Your task to perform on an android device: toggle wifi Image 0: 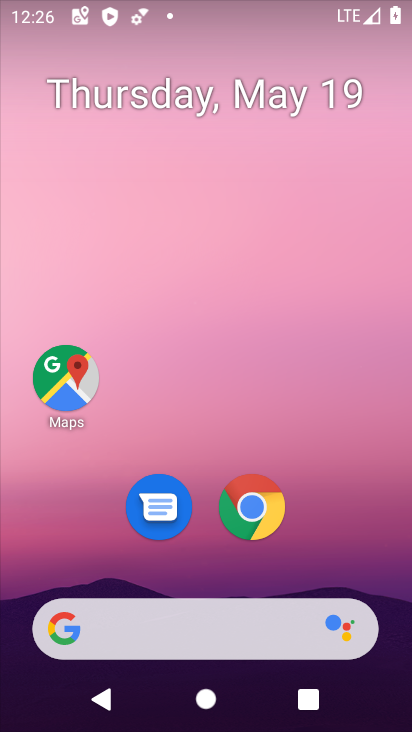
Step 0: drag from (211, 539) to (236, 164)
Your task to perform on an android device: toggle wifi Image 1: 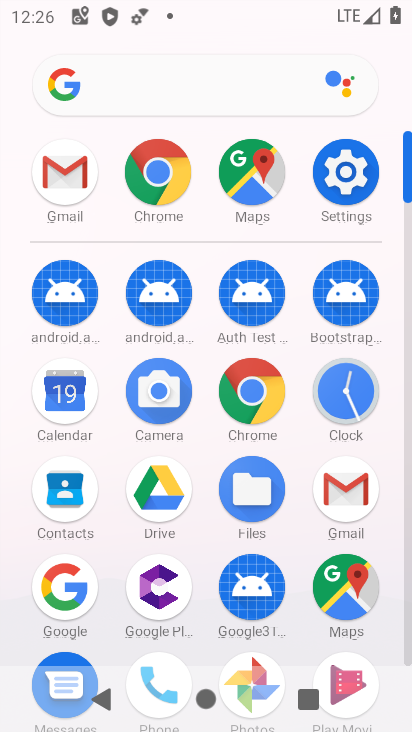
Step 1: click (355, 194)
Your task to perform on an android device: toggle wifi Image 2: 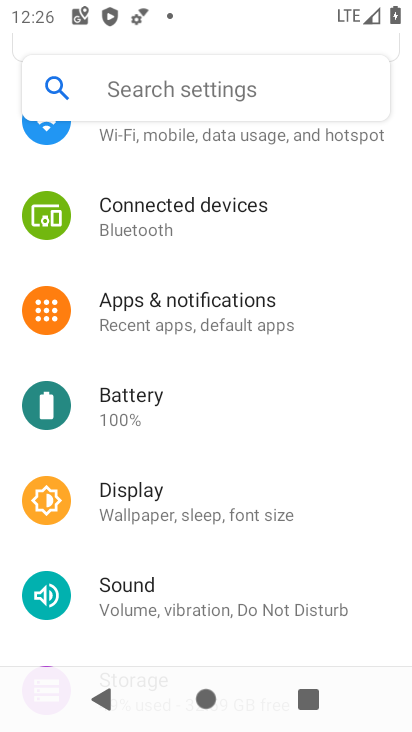
Step 2: drag from (256, 194) to (223, 524)
Your task to perform on an android device: toggle wifi Image 3: 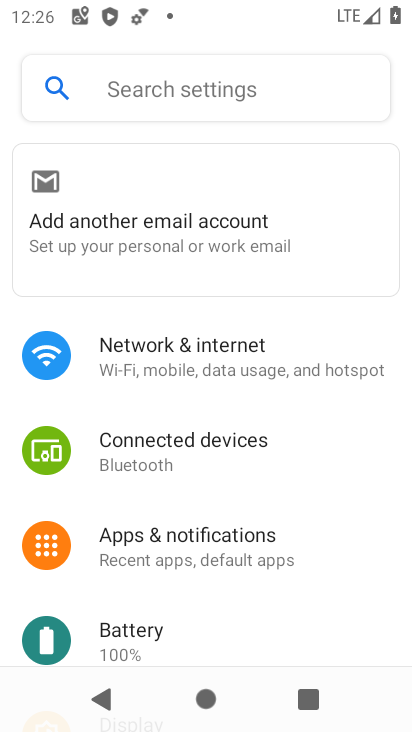
Step 3: click (213, 364)
Your task to perform on an android device: toggle wifi Image 4: 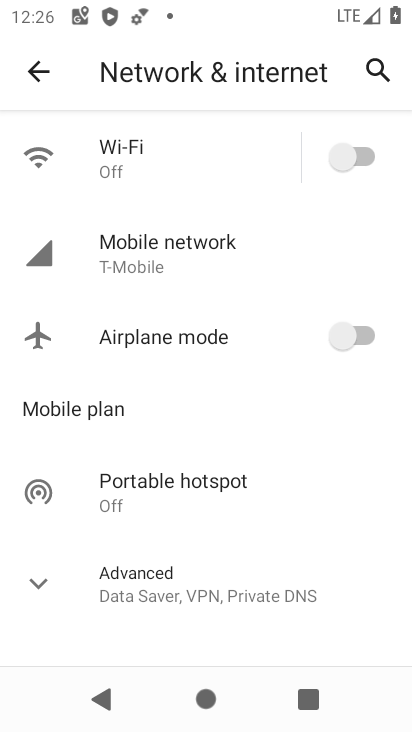
Step 4: click (367, 158)
Your task to perform on an android device: toggle wifi Image 5: 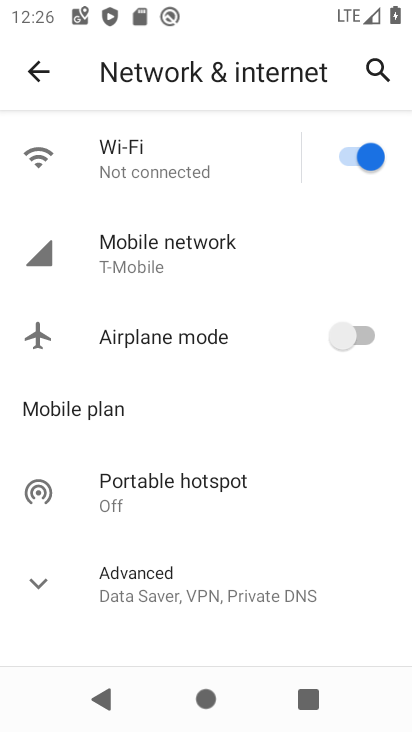
Step 5: task complete